Your task to perform on an android device: uninstall "Cash App" Image 0: 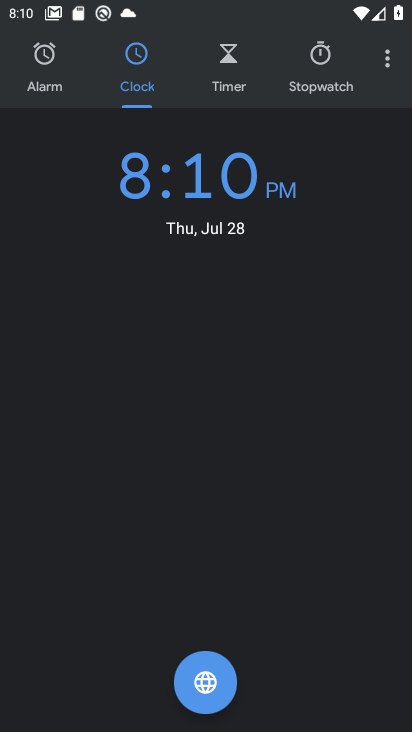
Step 0: press home button
Your task to perform on an android device: uninstall "Cash App" Image 1: 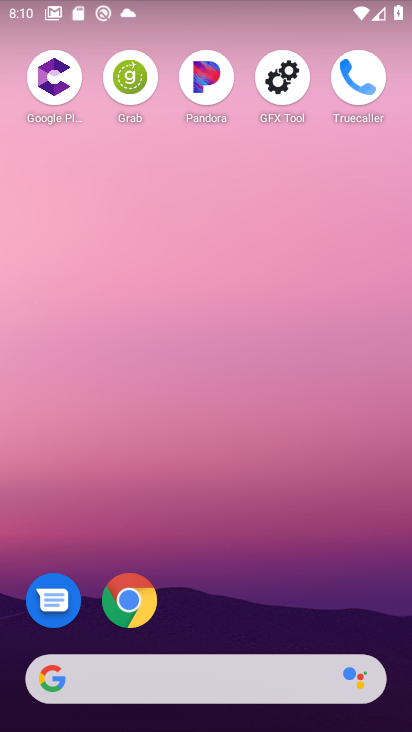
Step 1: press home button
Your task to perform on an android device: uninstall "Cash App" Image 2: 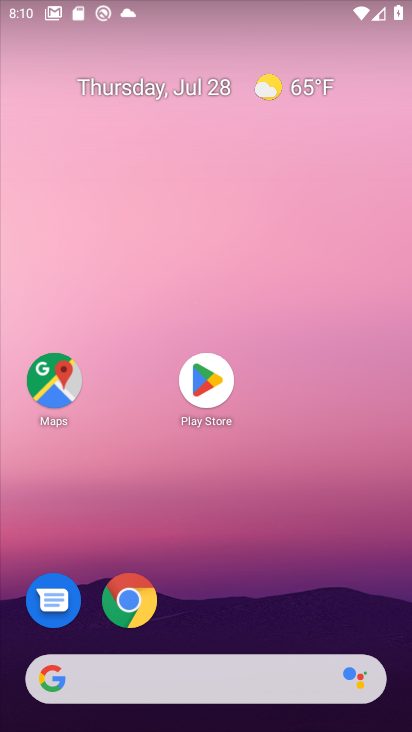
Step 2: click (202, 384)
Your task to perform on an android device: uninstall "Cash App" Image 3: 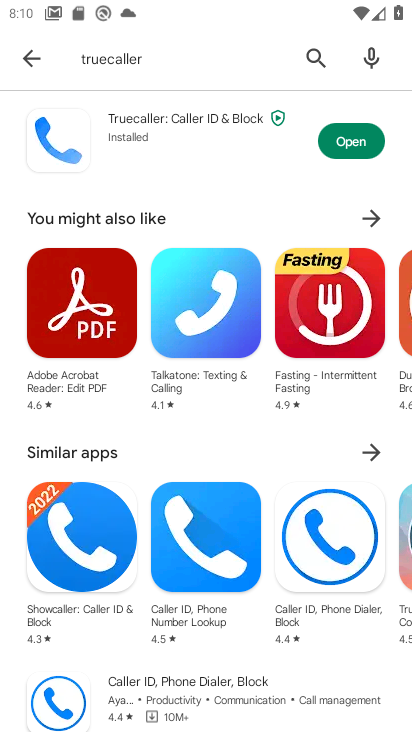
Step 3: click (310, 56)
Your task to perform on an android device: uninstall "Cash App" Image 4: 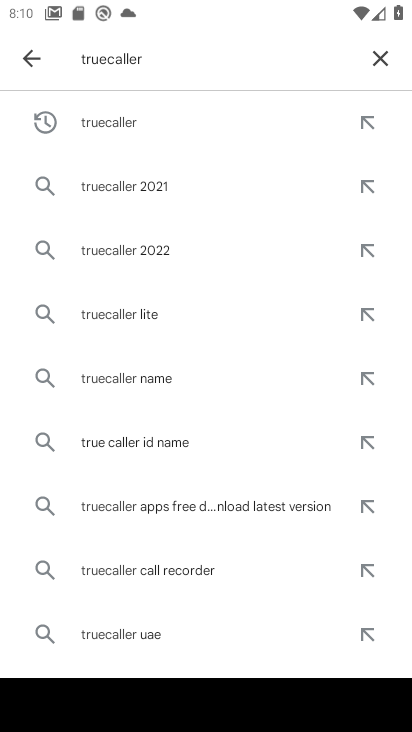
Step 4: click (383, 55)
Your task to perform on an android device: uninstall "Cash App" Image 5: 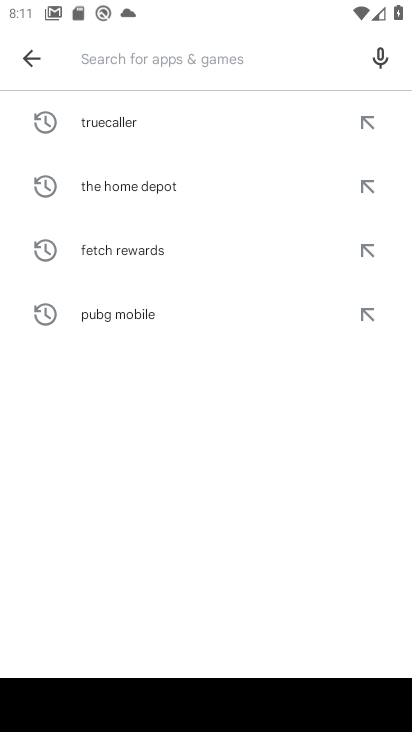
Step 5: type "Cash App"
Your task to perform on an android device: uninstall "Cash App" Image 6: 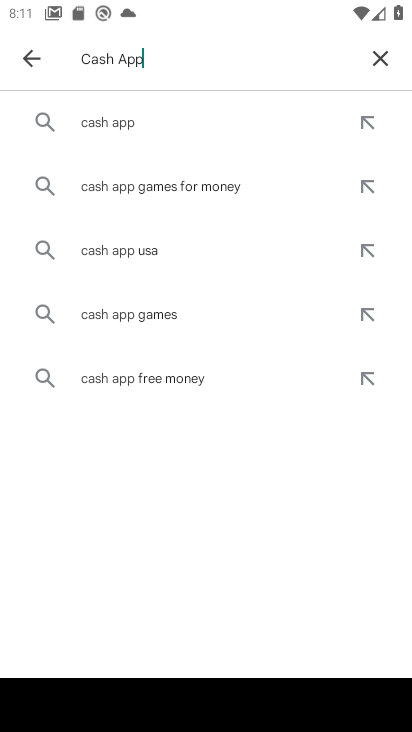
Step 6: click (120, 114)
Your task to perform on an android device: uninstall "Cash App" Image 7: 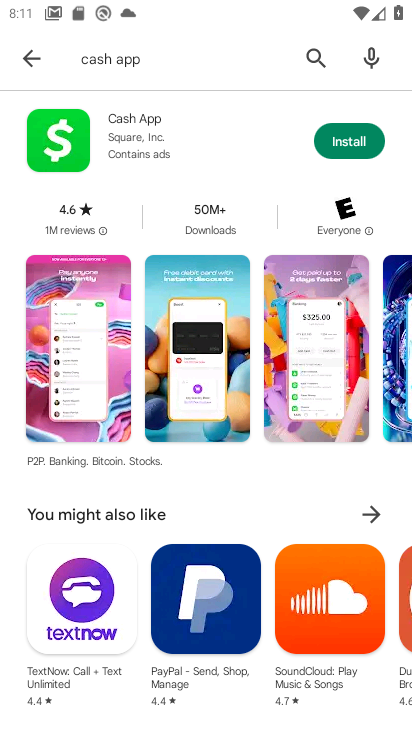
Step 7: task complete